Your task to perform on an android device: See recent photos Image 0: 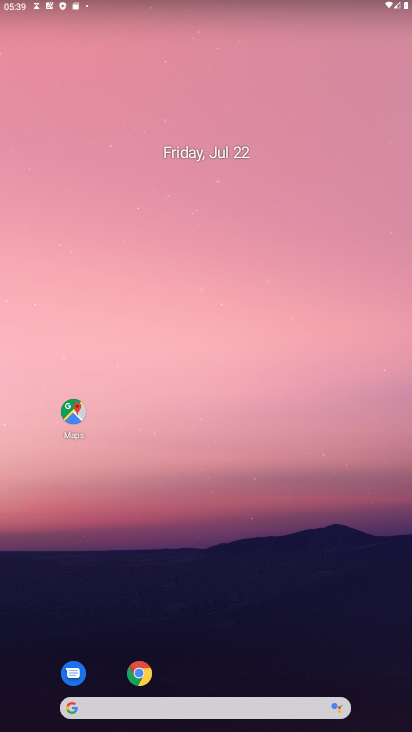
Step 0: drag from (264, 649) to (250, 55)
Your task to perform on an android device: See recent photos Image 1: 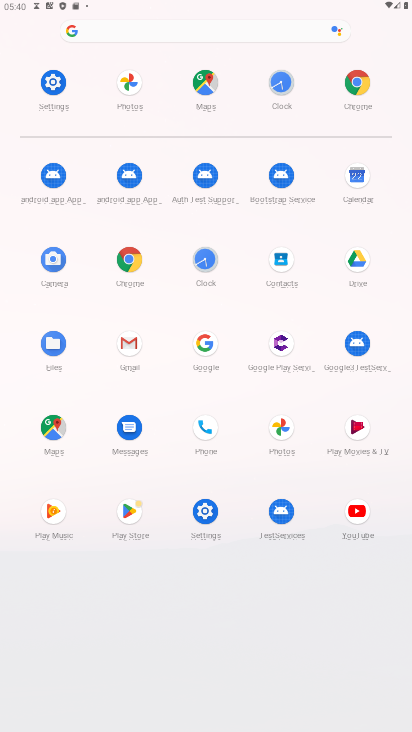
Step 1: click (281, 427)
Your task to perform on an android device: See recent photos Image 2: 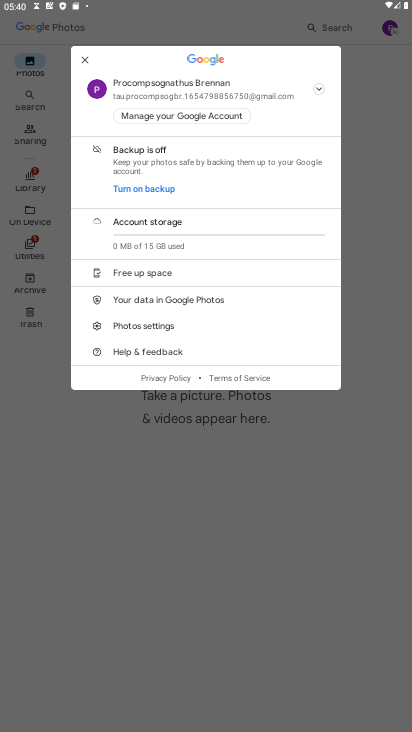
Step 2: click (88, 61)
Your task to perform on an android device: See recent photos Image 3: 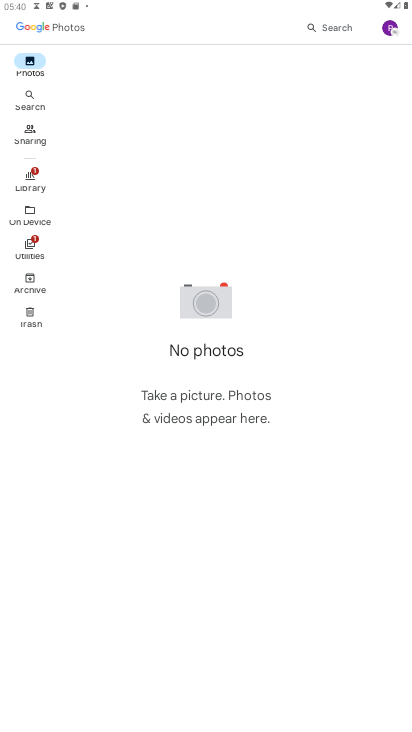
Step 3: click (21, 62)
Your task to perform on an android device: See recent photos Image 4: 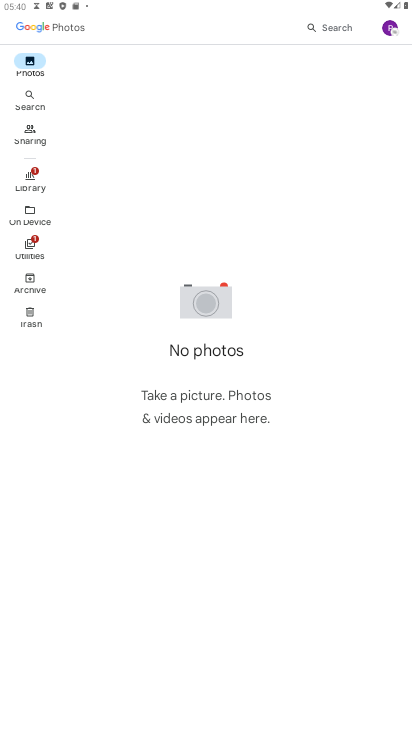
Step 4: task complete